Your task to perform on an android device: turn on bluetooth scan Image 0: 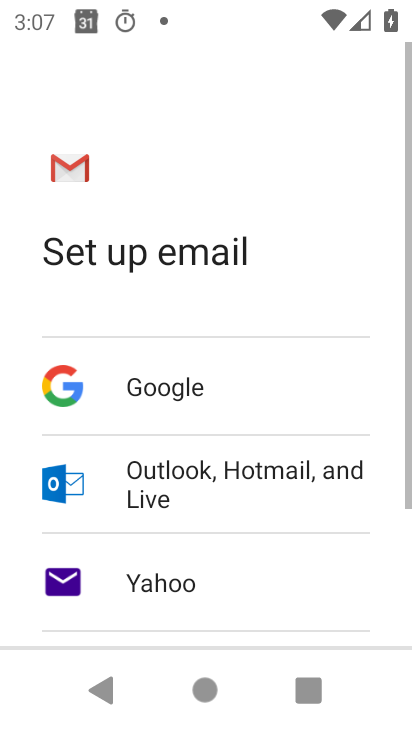
Step 0: press home button
Your task to perform on an android device: turn on bluetooth scan Image 1: 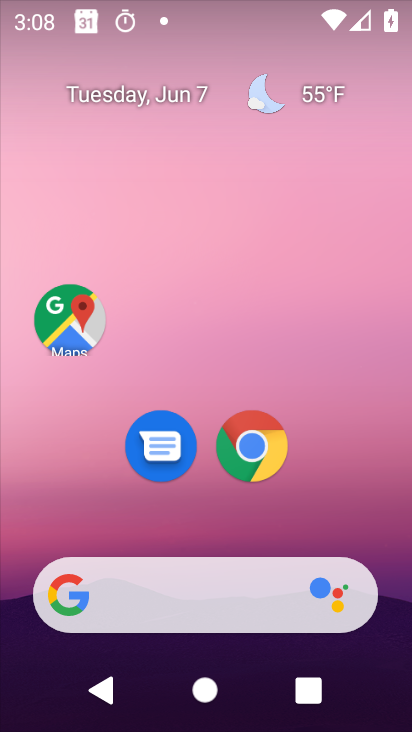
Step 1: drag from (325, 500) to (348, 0)
Your task to perform on an android device: turn on bluetooth scan Image 2: 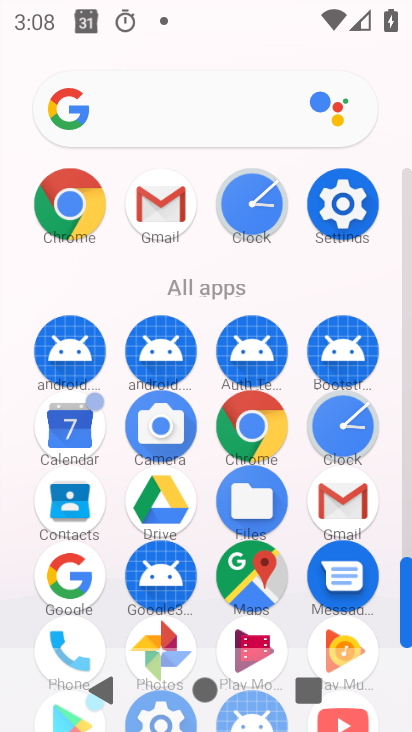
Step 2: click (339, 218)
Your task to perform on an android device: turn on bluetooth scan Image 3: 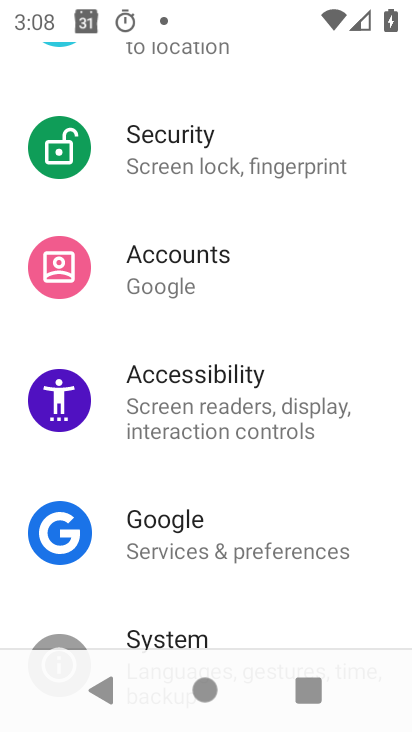
Step 3: drag from (247, 268) to (240, 478)
Your task to perform on an android device: turn on bluetooth scan Image 4: 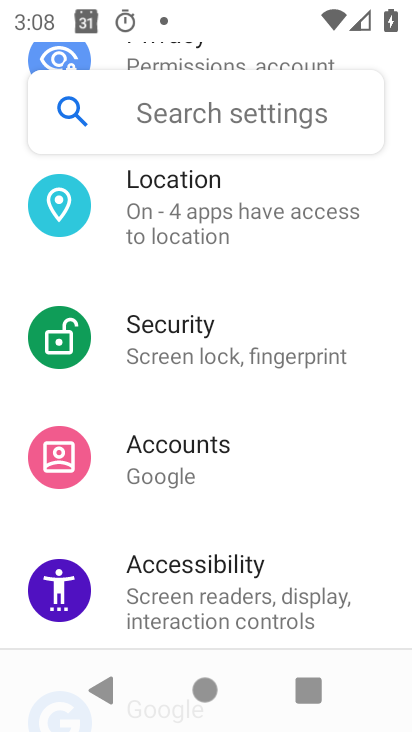
Step 4: click (176, 227)
Your task to perform on an android device: turn on bluetooth scan Image 5: 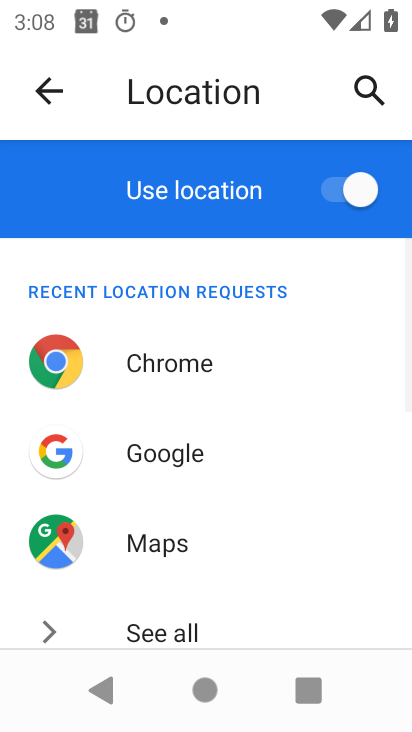
Step 5: drag from (236, 579) to (307, 127)
Your task to perform on an android device: turn on bluetooth scan Image 6: 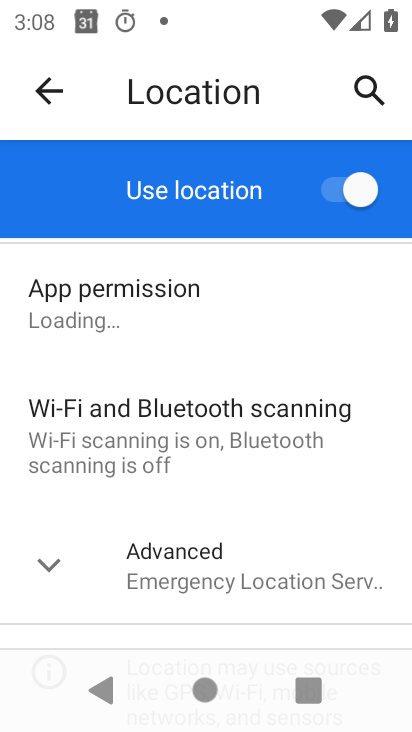
Step 6: click (229, 447)
Your task to perform on an android device: turn on bluetooth scan Image 7: 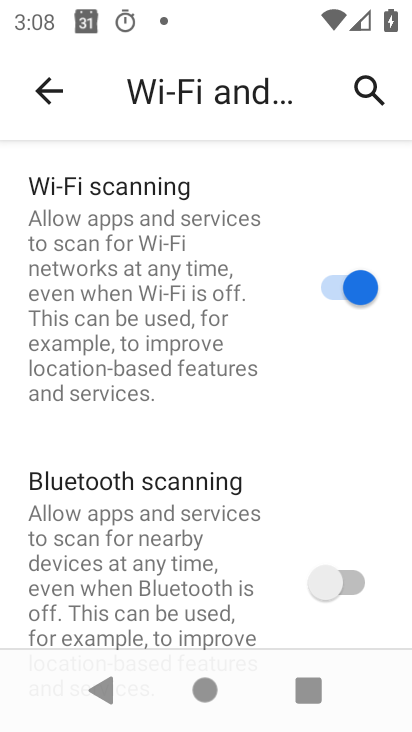
Step 7: click (351, 581)
Your task to perform on an android device: turn on bluetooth scan Image 8: 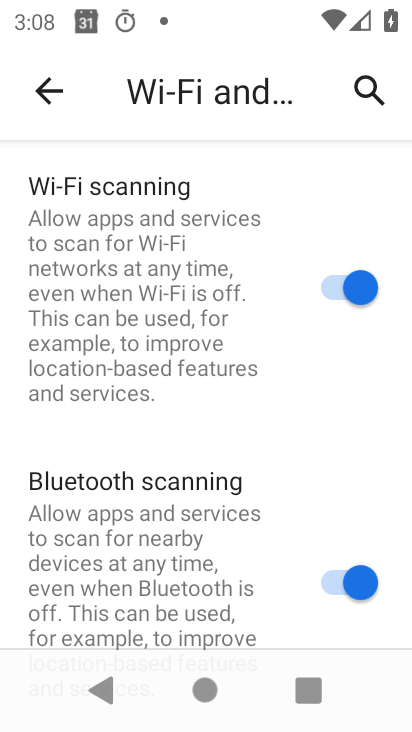
Step 8: task complete